Your task to perform on an android device: open the mobile data screen to see how much data has been used Image 0: 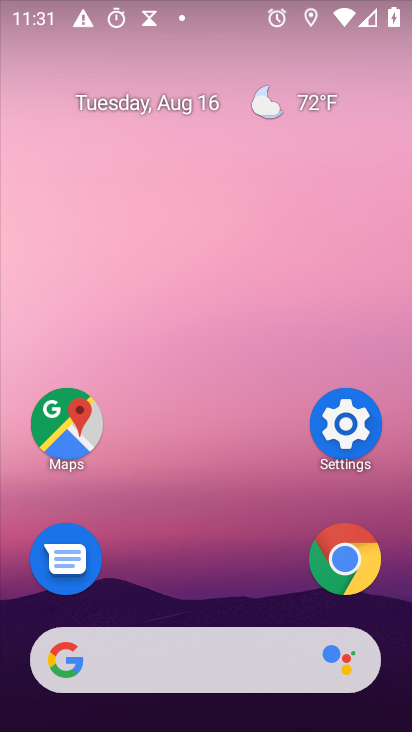
Step 0: click (339, 427)
Your task to perform on an android device: open the mobile data screen to see how much data has been used Image 1: 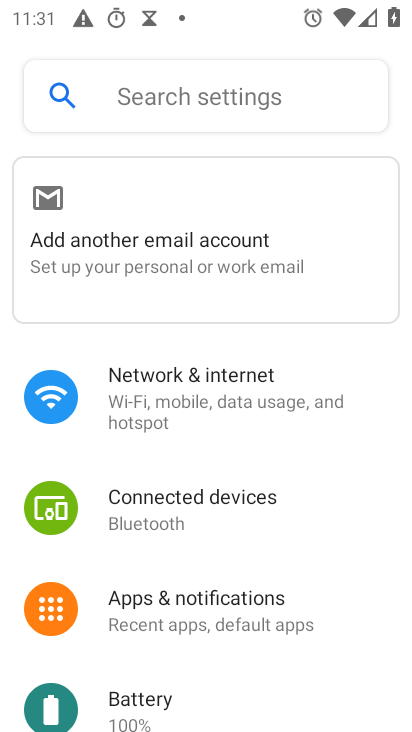
Step 1: click (204, 388)
Your task to perform on an android device: open the mobile data screen to see how much data has been used Image 2: 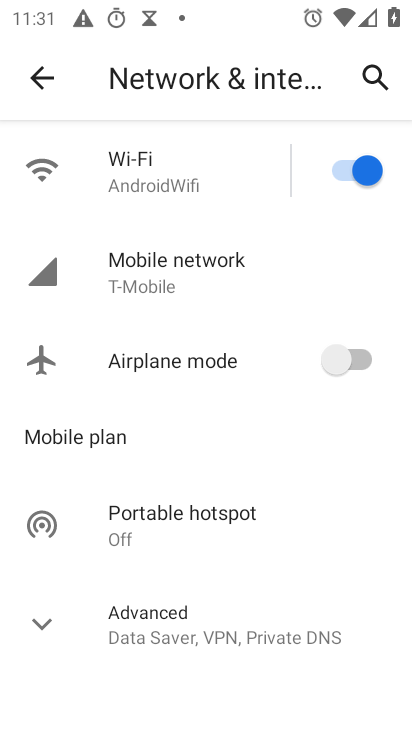
Step 2: click (156, 277)
Your task to perform on an android device: open the mobile data screen to see how much data has been used Image 3: 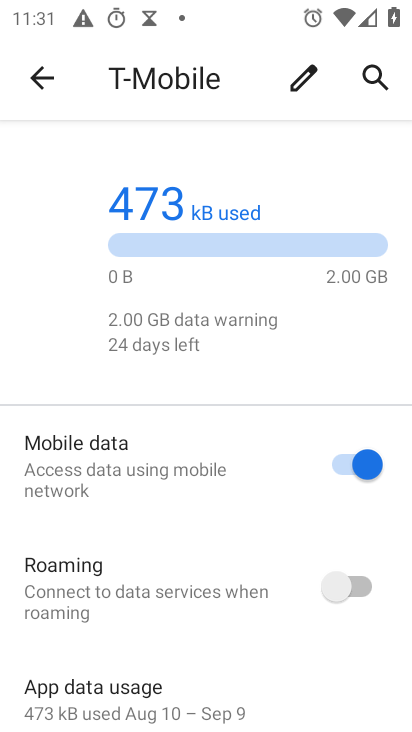
Step 3: task complete